Your task to perform on an android device: When is my next appointment? Image 0: 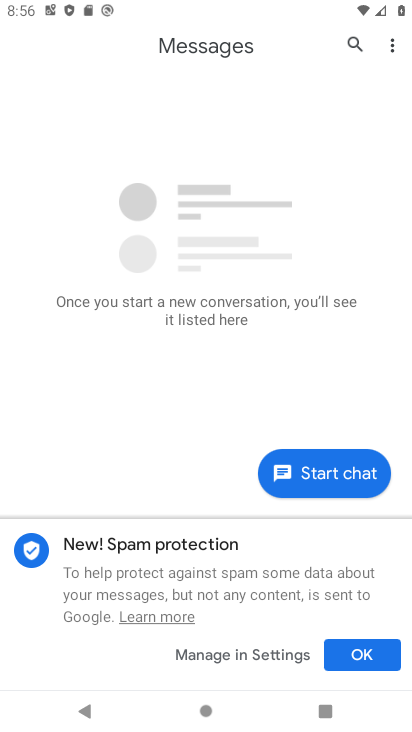
Step 0: press home button
Your task to perform on an android device: When is my next appointment? Image 1: 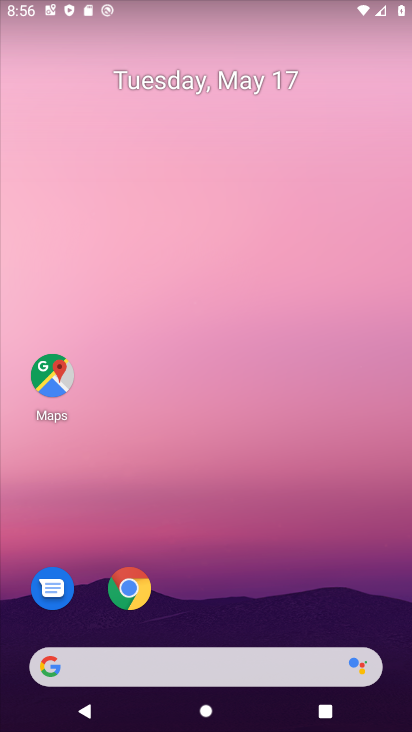
Step 1: drag from (402, 703) to (351, 437)
Your task to perform on an android device: When is my next appointment? Image 2: 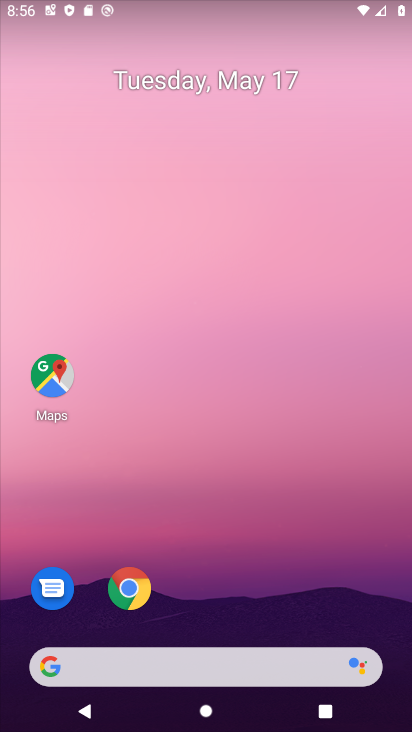
Step 2: drag from (398, 713) to (377, 387)
Your task to perform on an android device: When is my next appointment? Image 3: 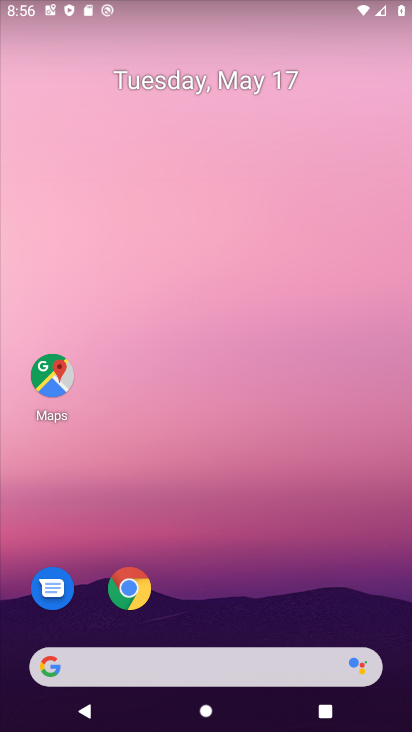
Step 3: drag from (379, 568) to (378, 246)
Your task to perform on an android device: When is my next appointment? Image 4: 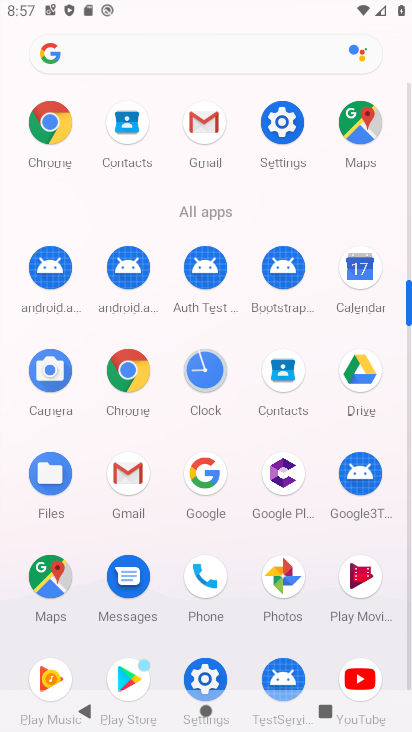
Step 4: click (356, 271)
Your task to perform on an android device: When is my next appointment? Image 5: 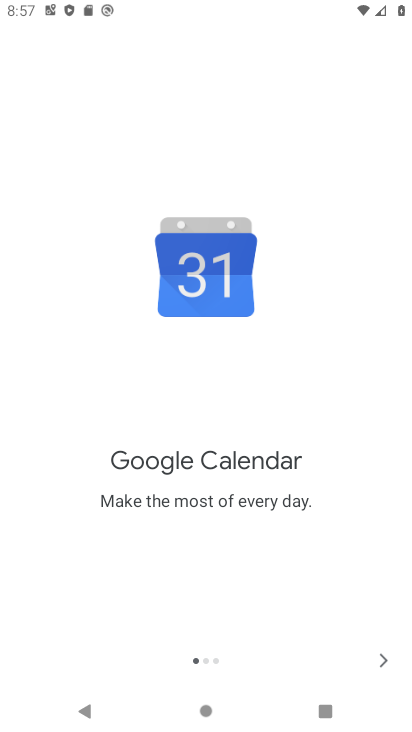
Step 5: click (376, 659)
Your task to perform on an android device: When is my next appointment? Image 6: 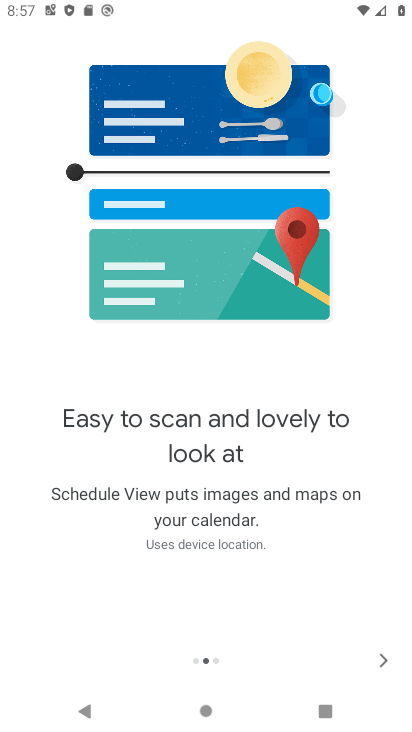
Step 6: click (375, 659)
Your task to perform on an android device: When is my next appointment? Image 7: 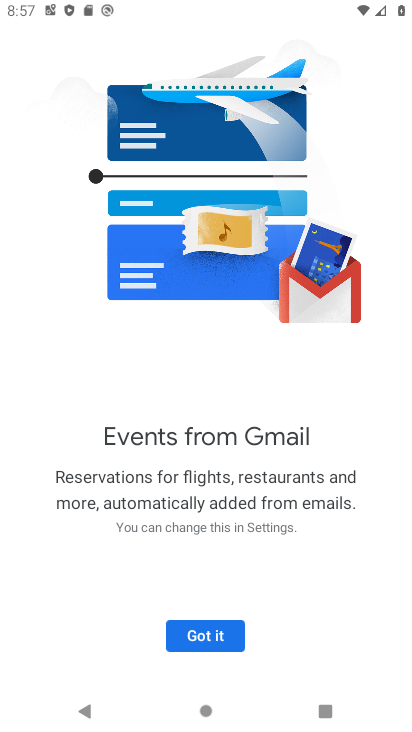
Step 7: click (216, 641)
Your task to perform on an android device: When is my next appointment? Image 8: 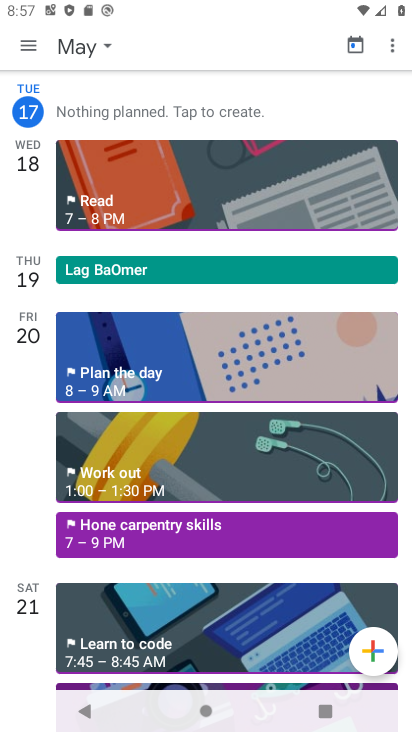
Step 8: click (105, 40)
Your task to perform on an android device: When is my next appointment? Image 9: 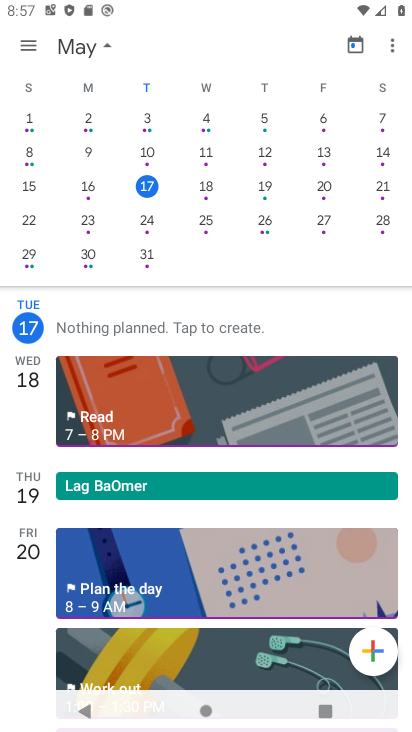
Step 9: click (149, 186)
Your task to perform on an android device: When is my next appointment? Image 10: 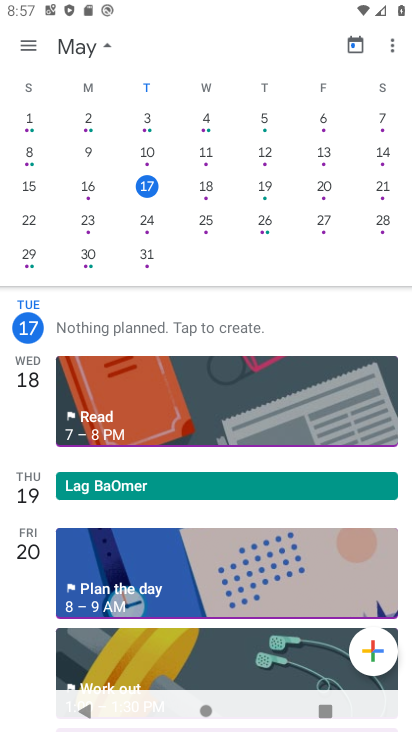
Step 10: click (27, 44)
Your task to perform on an android device: When is my next appointment? Image 11: 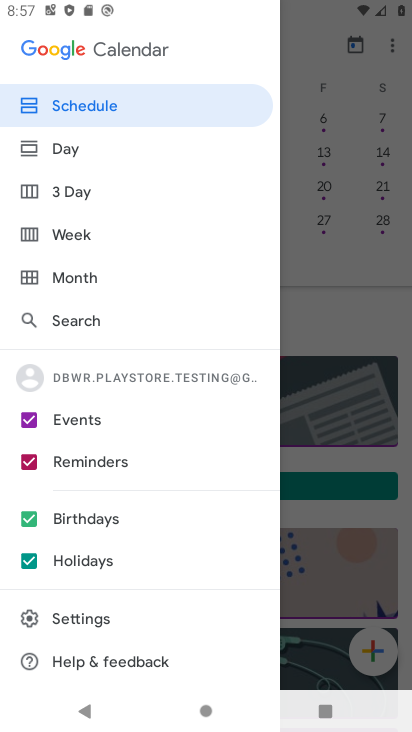
Step 11: click (80, 102)
Your task to perform on an android device: When is my next appointment? Image 12: 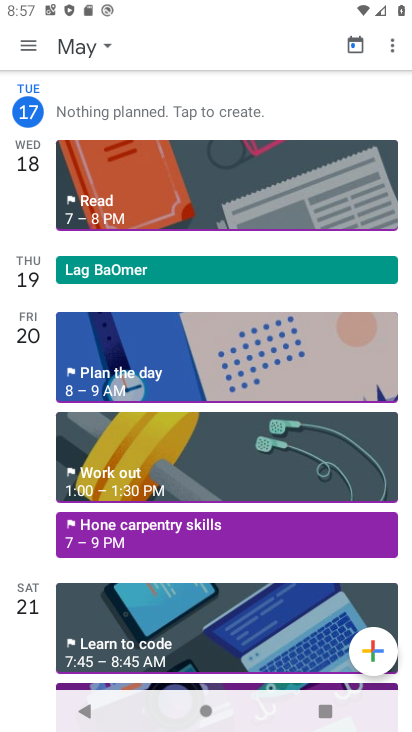
Step 12: click (29, 43)
Your task to perform on an android device: When is my next appointment? Image 13: 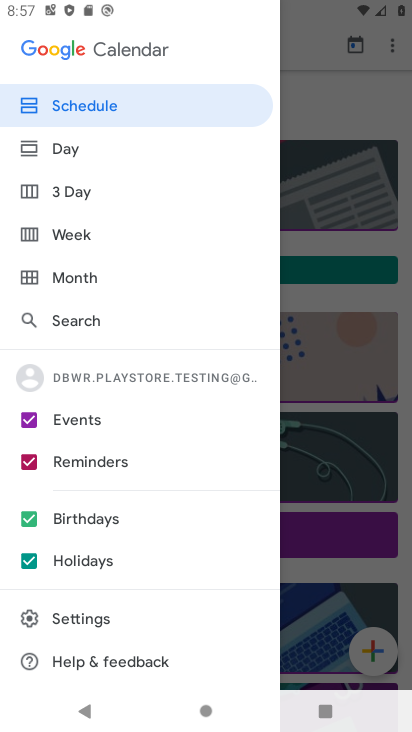
Step 13: click (36, 556)
Your task to perform on an android device: When is my next appointment? Image 14: 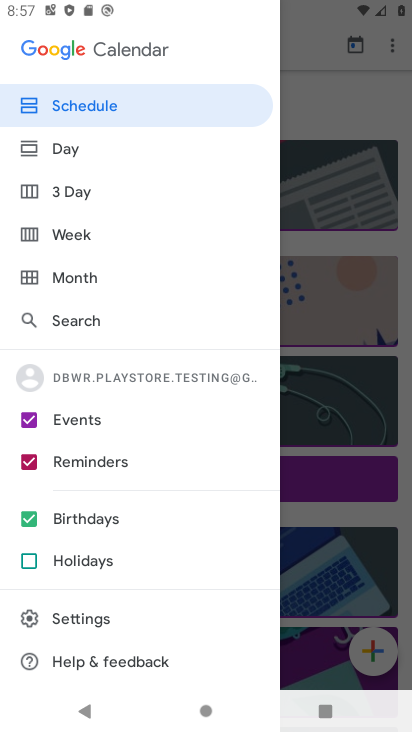
Step 14: click (28, 517)
Your task to perform on an android device: When is my next appointment? Image 15: 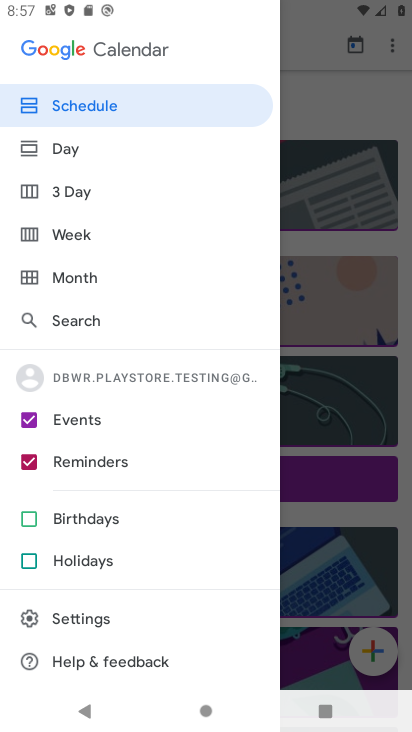
Step 15: click (29, 466)
Your task to perform on an android device: When is my next appointment? Image 16: 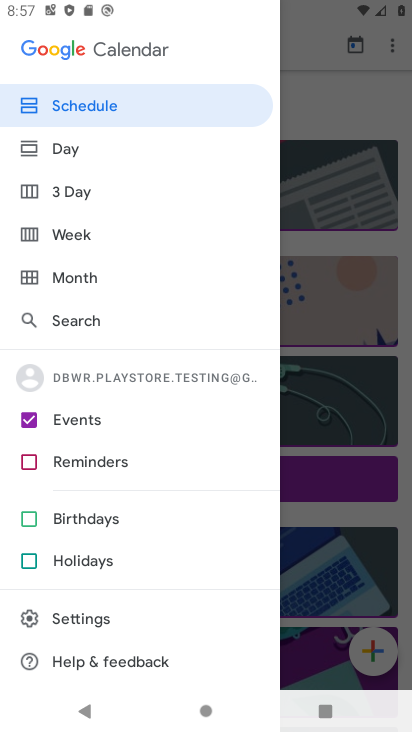
Step 16: click (44, 103)
Your task to perform on an android device: When is my next appointment? Image 17: 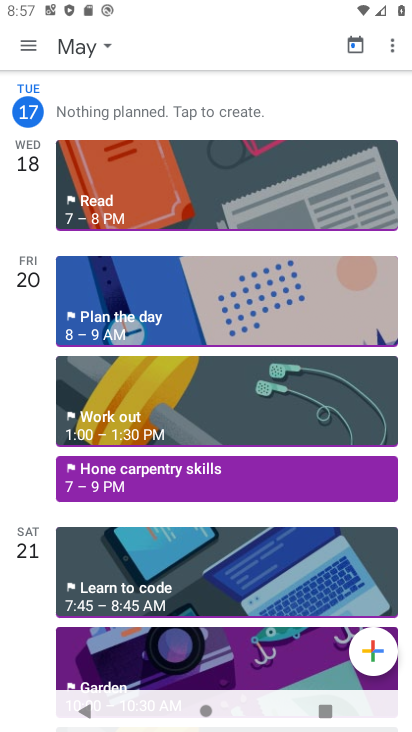
Step 17: task complete